Your task to perform on an android device: all mails in gmail Image 0: 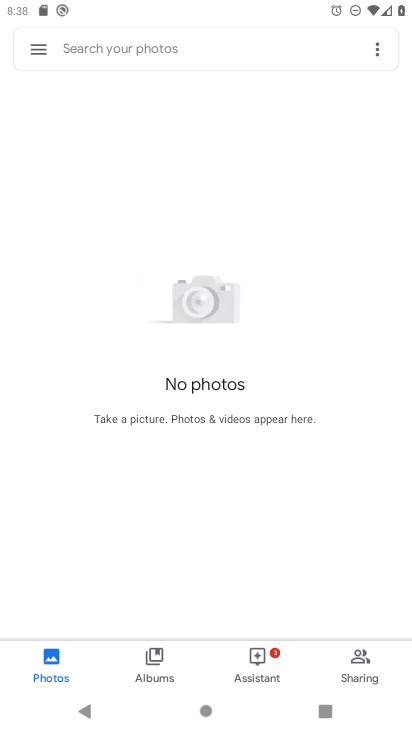
Step 0: press home button
Your task to perform on an android device: all mails in gmail Image 1: 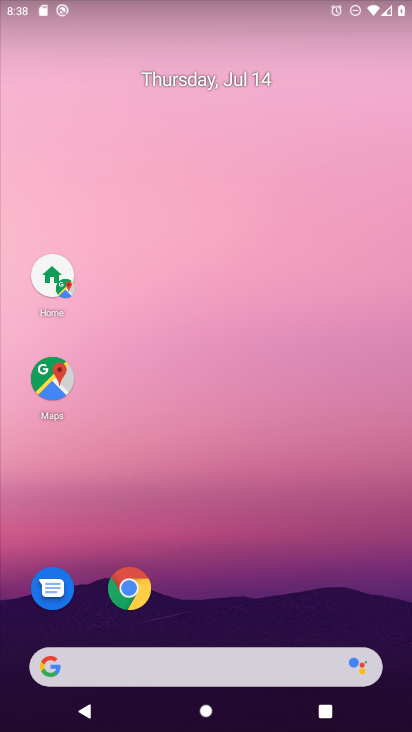
Step 1: drag from (53, 701) to (242, 25)
Your task to perform on an android device: all mails in gmail Image 2: 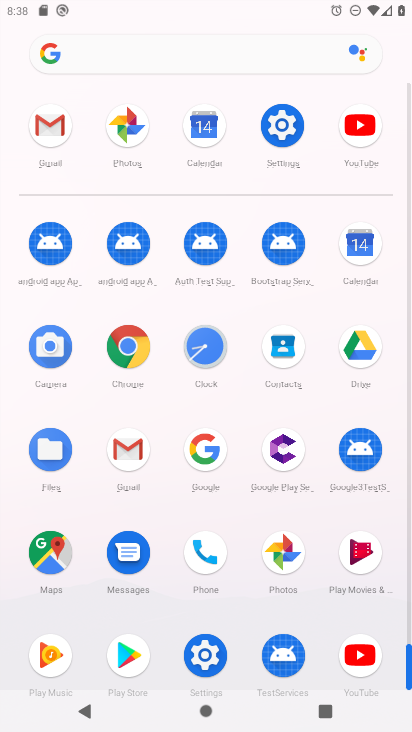
Step 2: click (122, 462)
Your task to perform on an android device: all mails in gmail Image 3: 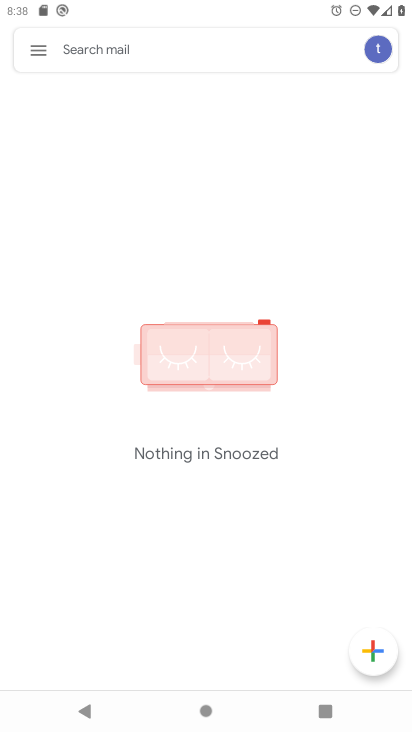
Step 3: click (44, 46)
Your task to perform on an android device: all mails in gmail Image 4: 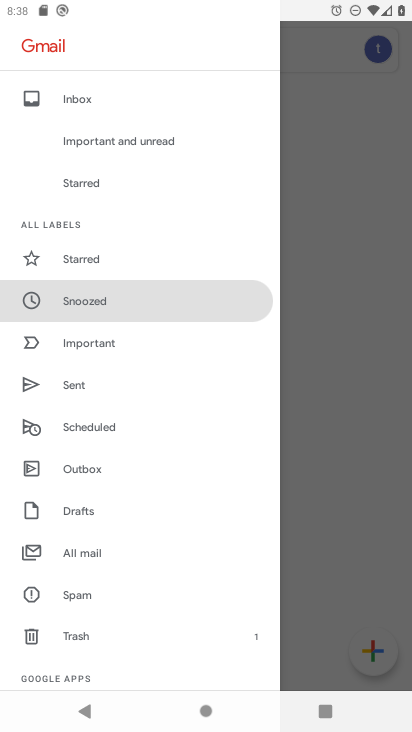
Step 4: click (79, 538)
Your task to perform on an android device: all mails in gmail Image 5: 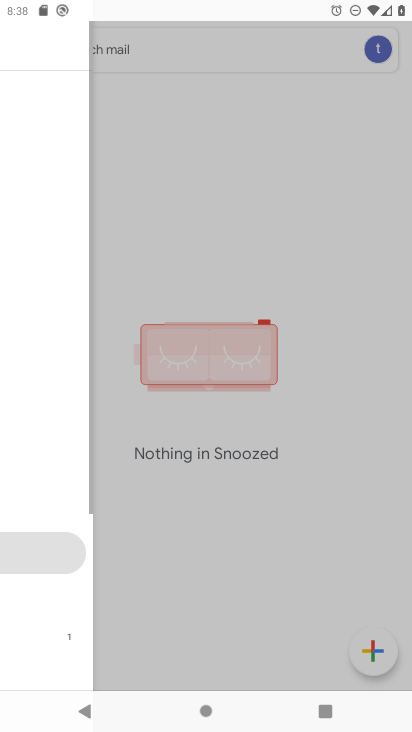
Step 5: click (82, 544)
Your task to perform on an android device: all mails in gmail Image 6: 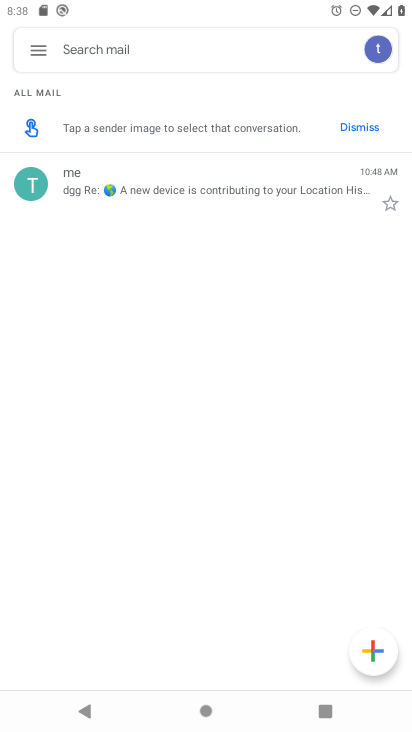
Step 6: task complete